Your task to perform on an android device: open wifi settings Image 0: 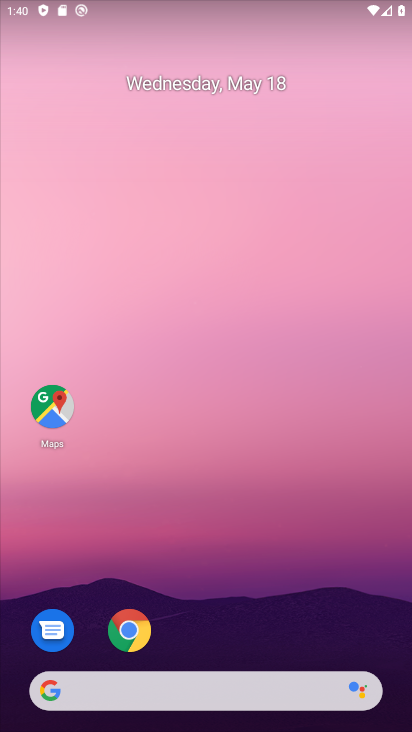
Step 0: drag from (218, 601) to (139, 170)
Your task to perform on an android device: open wifi settings Image 1: 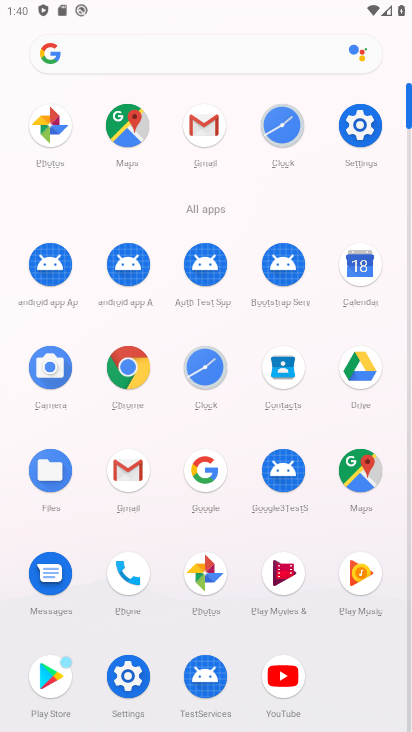
Step 1: click (352, 146)
Your task to perform on an android device: open wifi settings Image 2: 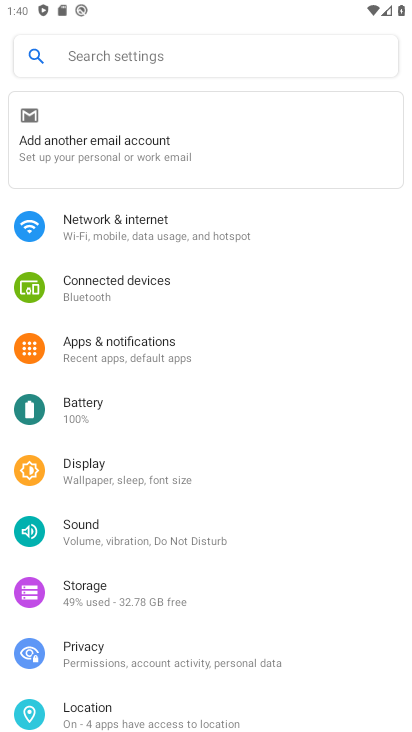
Step 2: click (118, 218)
Your task to perform on an android device: open wifi settings Image 3: 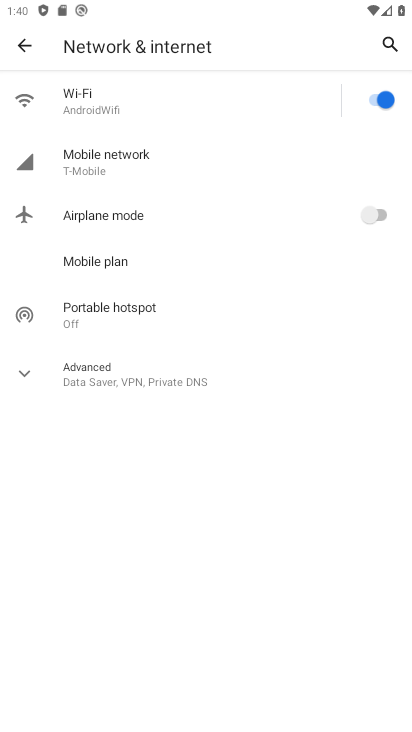
Step 3: click (114, 105)
Your task to perform on an android device: open wifi settings Image 4: 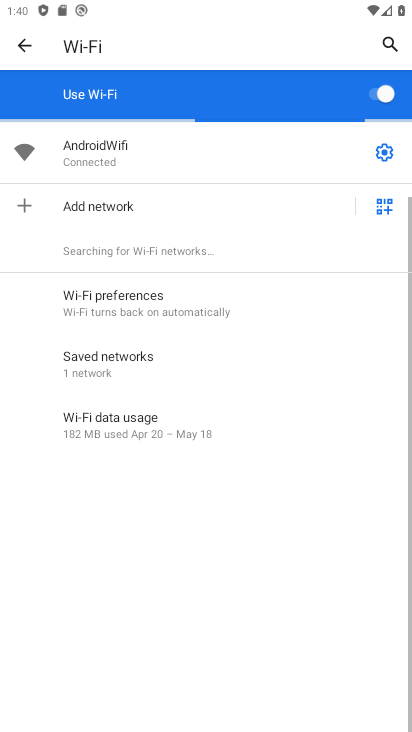
Step 4: task complete